Your task to perform on an android device: change the clock display to show seconds Image 0: 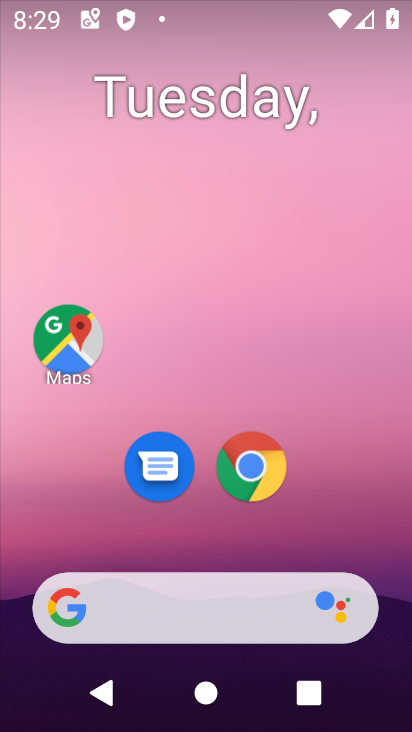
Step 0: drag from (383, 559) to (324, 161)
Your task to perform on an android device: change the clock display to show seconds Image 1: 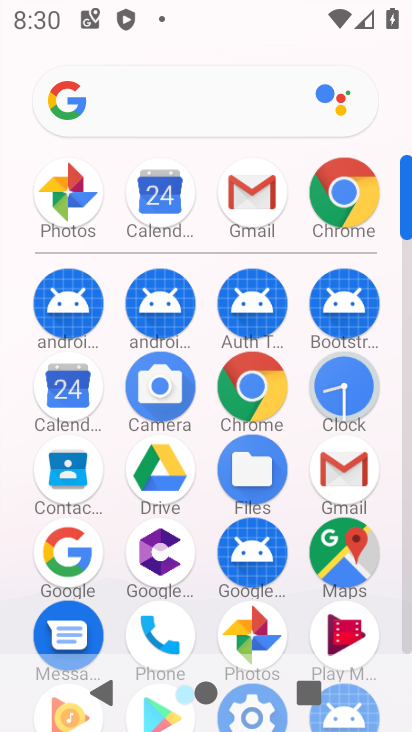
Step 1: click (358, 414)
Your task to perform on an android device: change the clock display to show seconds Image 2: 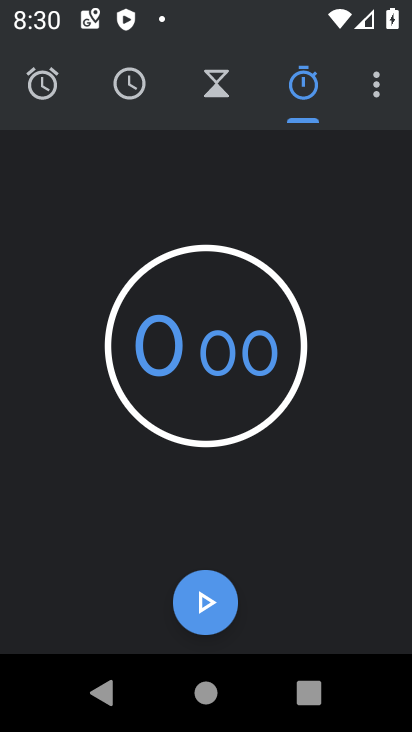
Step 2: click (385, 96)
Your task to perform on an android device: change the clock display to show seconds Image 3: 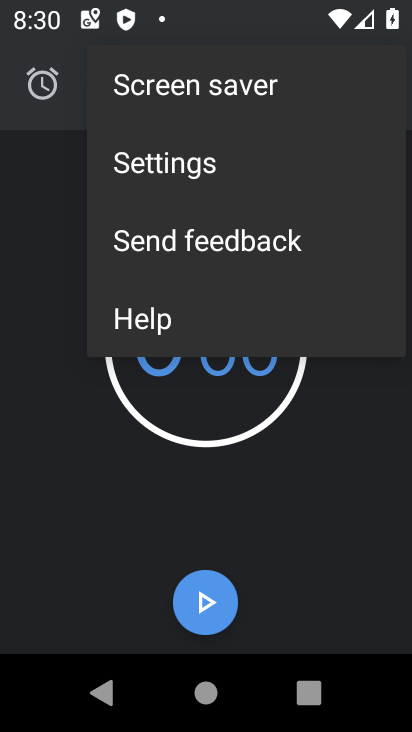
Step 3: click (221, 167)
Your task to perform on an android device: change the clock display to show seconds Image 4: 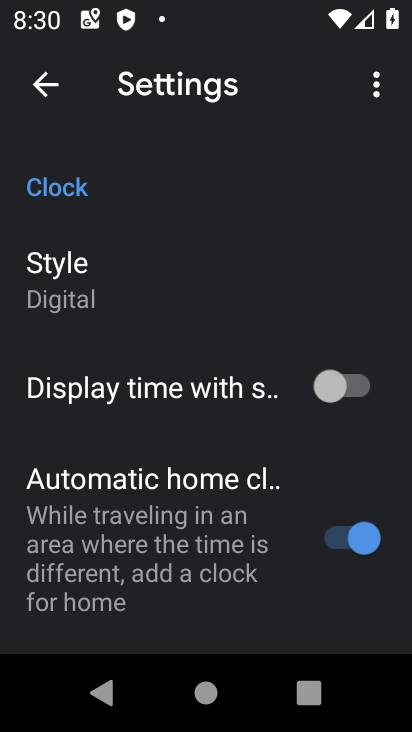
Step 4: click (345, 386)
Your task to perform on an android device: change the clock display to show seconds Image 5: 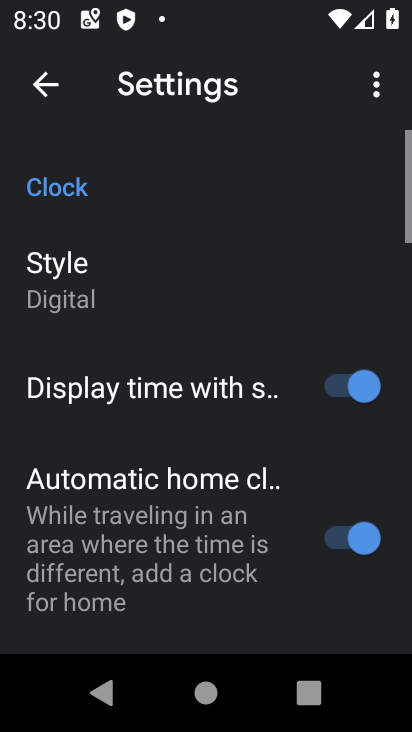
Step 5: task complete